Your task to perform on an android device: turn pop-ups on in chrome Image 0: 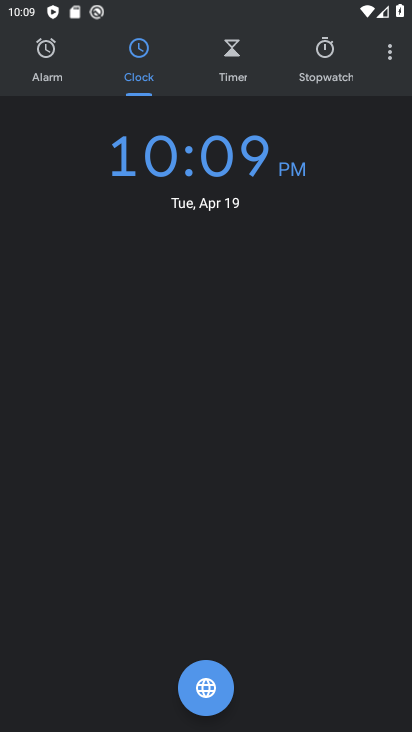
Step 0: press home button
Your task to perform on an android device: turn pop-ups on in chrome Image 1: 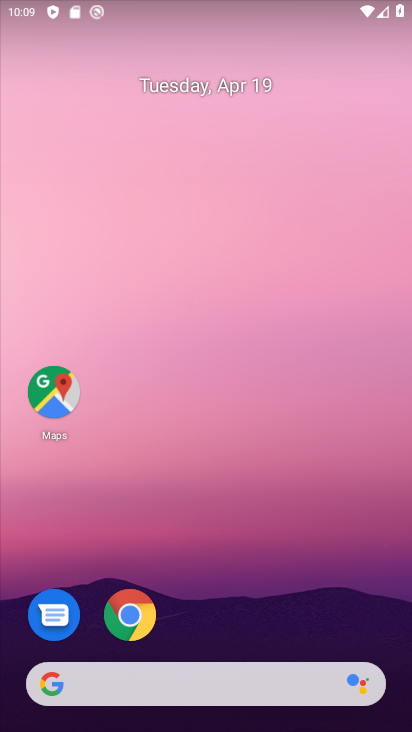
Step 1: click (131, 611)
Your task to perform on an android device: turn pop-ups on in chrome Image 2: 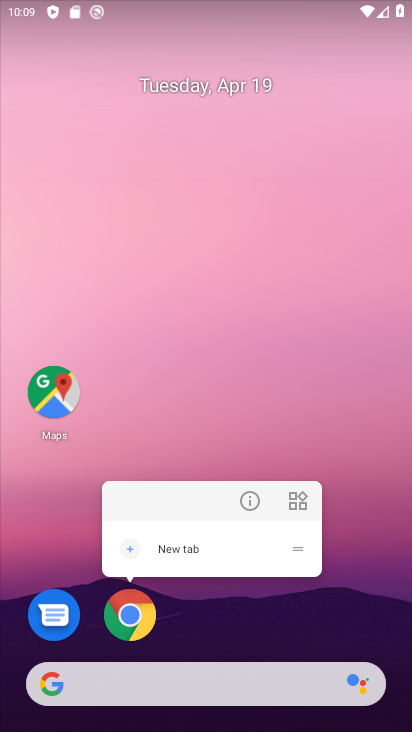
Step 2: click (133, 615)
Your task to perform on an android device: turn pop-ups on in chrome Image 3: 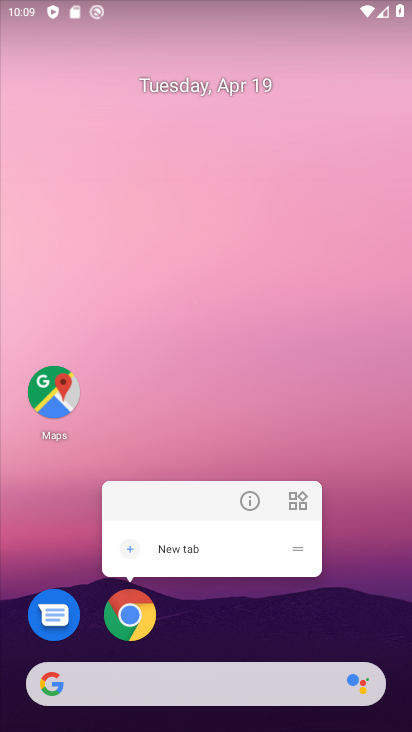
Step 3: click (192, 340)
Your task to perform on an android device: turn pop-ups on in chrome Image 4: 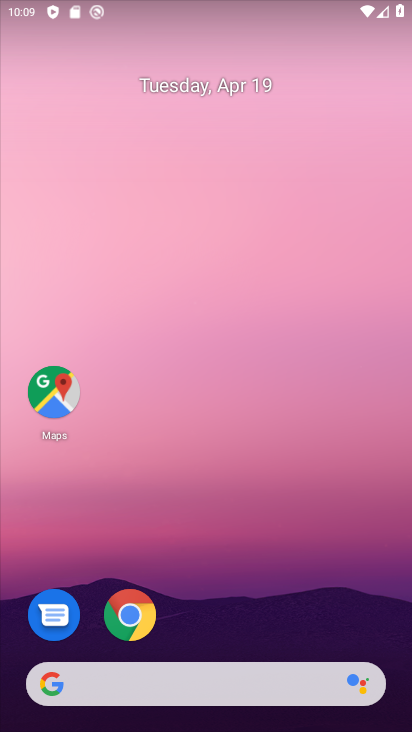
Step 4: click (131, 614)
Your task to perform on an android device: turn pop-ups on in chrome Image 5: 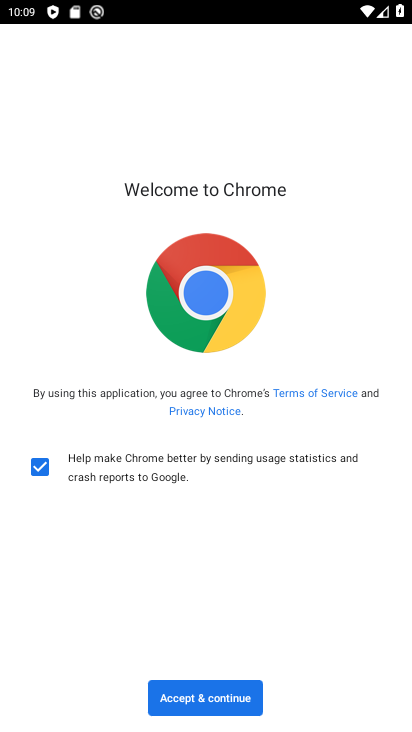
Step 5: click (187, 696)
Your task to perform on an android device: turn pop-ups on in chrome Image 6: 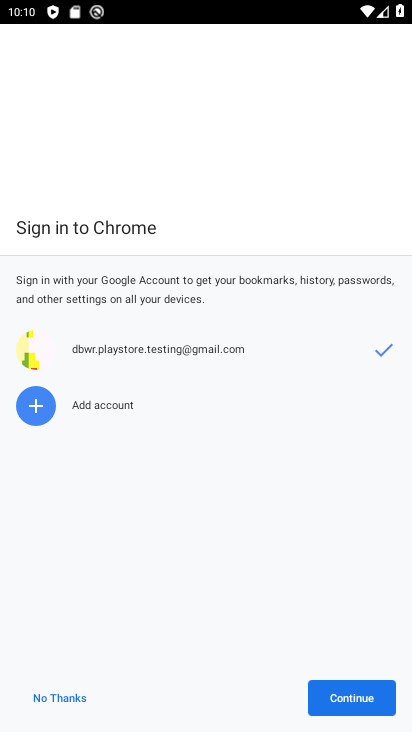
Step 6: click (368, 701)
Your task to perform on an android device: turn pop-ups on in chrome Image 7: 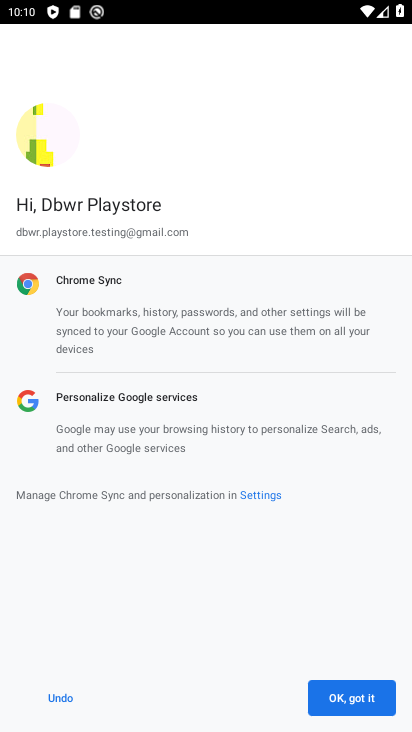
Step 7: click (368, 701)
Your task to perform on an android device: turn pop-ups on in chrome Image 8: 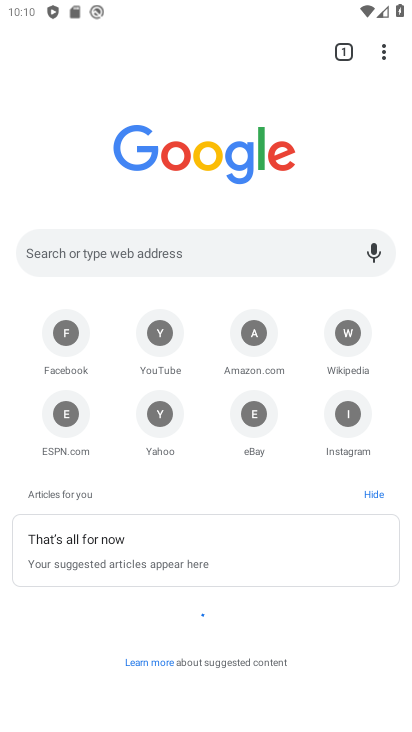
Step 8: click (378, 55)
Your task to perform on an android device: turn pop-ups on in chrome Image 9: 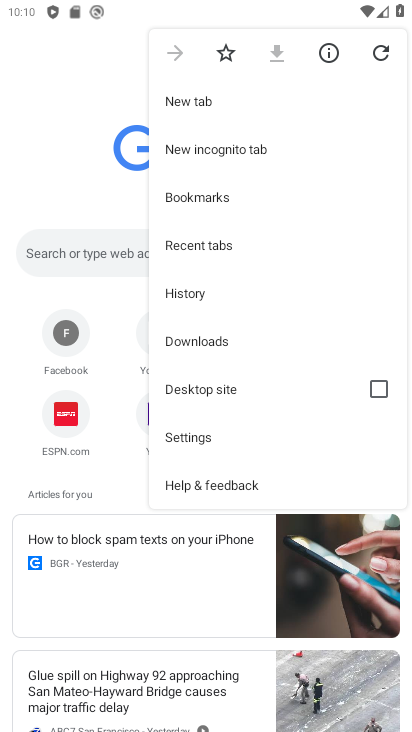
Step 9: click (206, 435)
Your task to perform on an android device: turn pop-ups on in chrome Image 10: 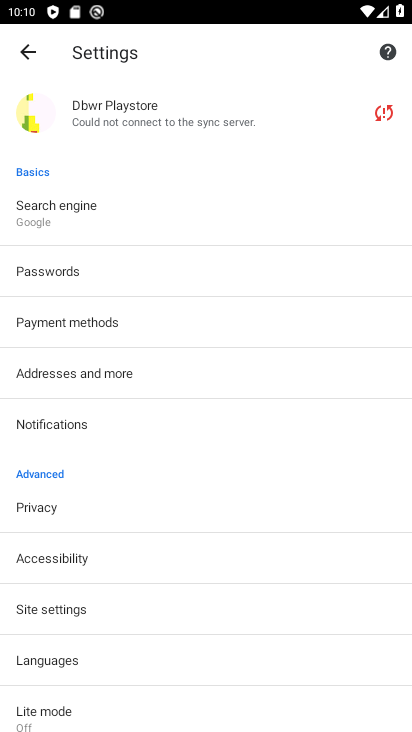
Step 10: click (76, 609)
Your task to perform on an android device: turn pop-ups on in chrome Image 11: 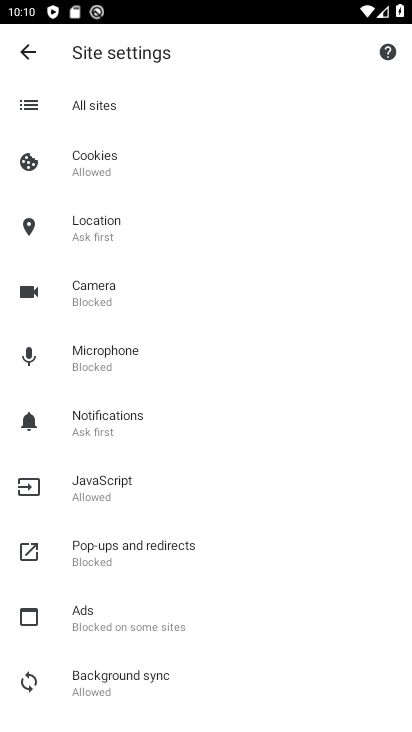
Step 11: click (129, 561)
Your task to perform on an android device: turn pop-ups on in chrome Image 12: 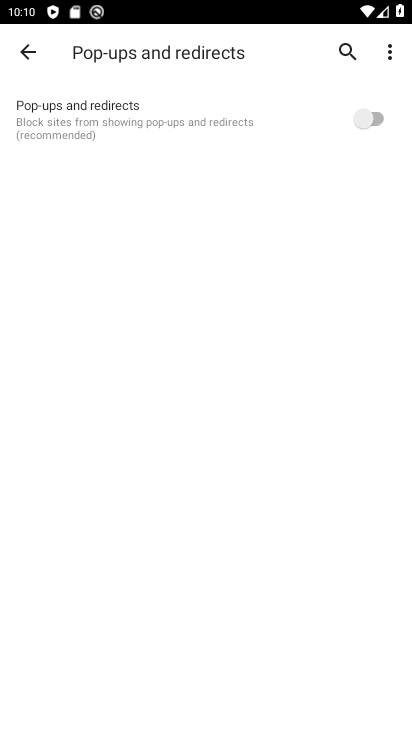
Step 12: click (383, 113)
Your task to perform on an android device: turn pop-ups on in chrome Image 13: 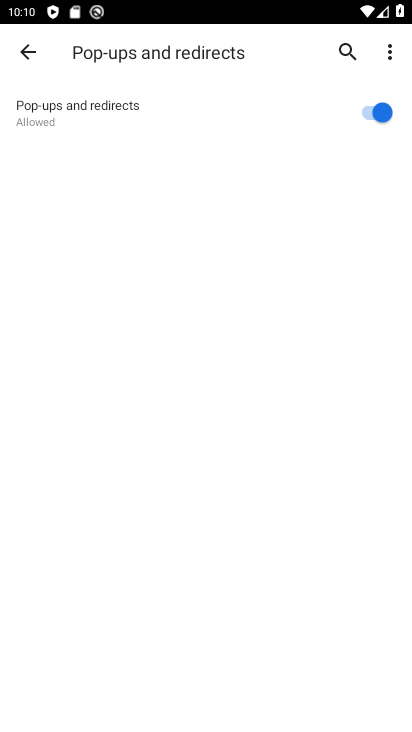
Step 13: task complete